Your task to perform on an android device: add a label to a message in the gmail app Image 0: 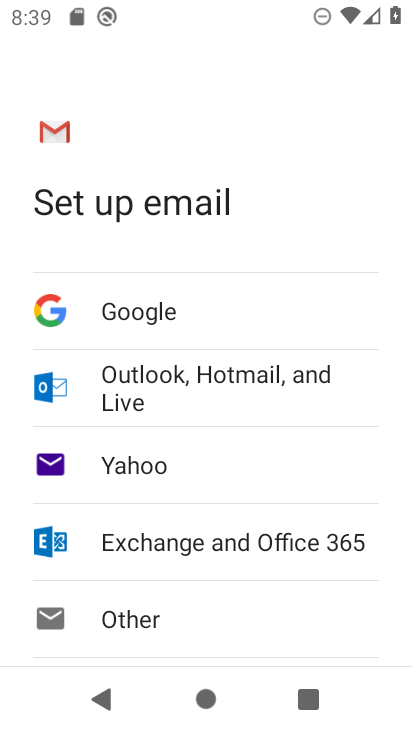
Step 0: press home button
Your task to perform on an android device: add a label to a message in the gmail app Image 1: 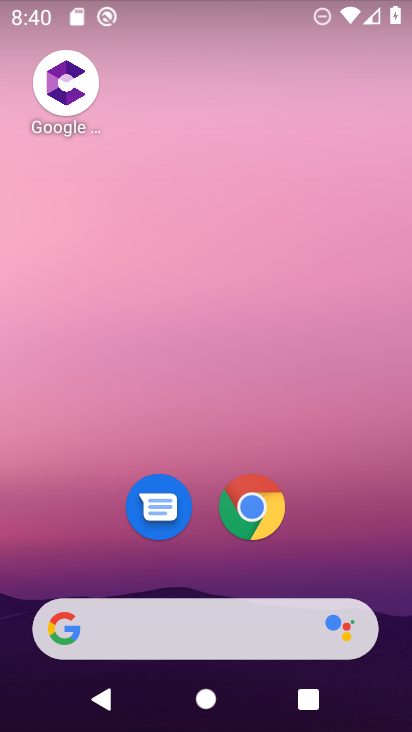
Step 1: drag from (211, 571) to (196, 107)
Your task to perform on an android device: add a label to a message in the gmail app Image 2: 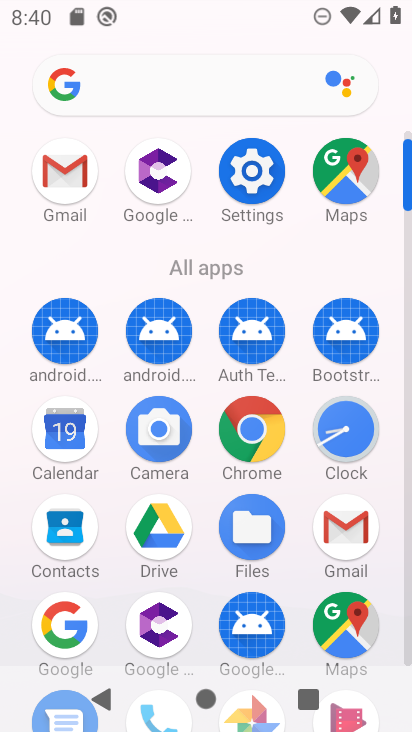
Step 2: click (355, 529)
Your task to perform on an android device: add a label to a message in the gmail app Image 3: 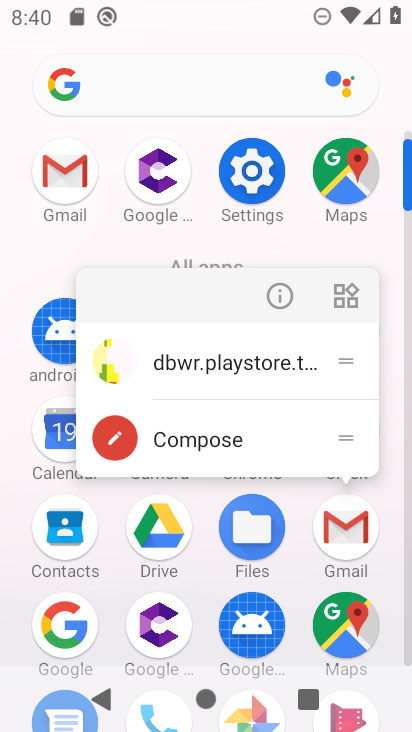
Step 3: click (355, 529)
Your task to perform on an android device: add a label to a message in the gmail app Image 4: 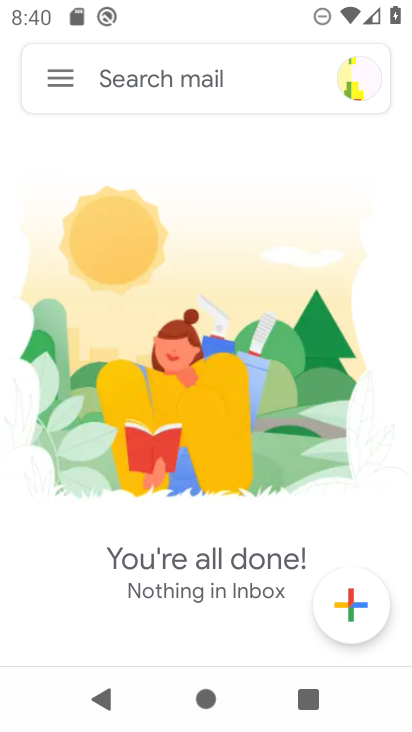
Step 4: click (45, 75)
Your task to perform on an android device: add a label to a message in the gmail app Image 5: 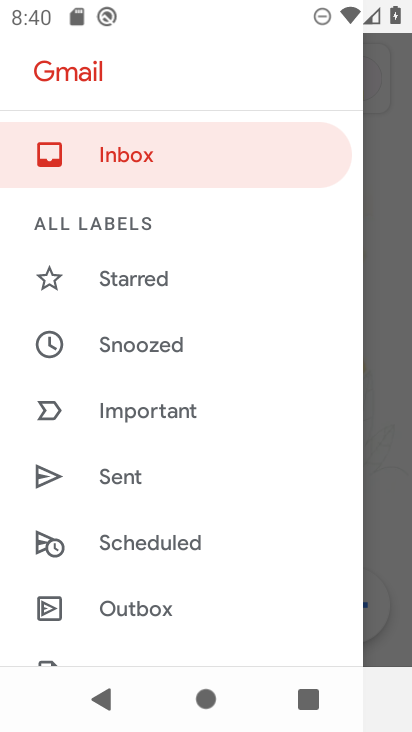
Step 5: drag from (206, 591) to (230, 222)
Your task to perform on an android device: add a label to a message in the gmail app Image 6: 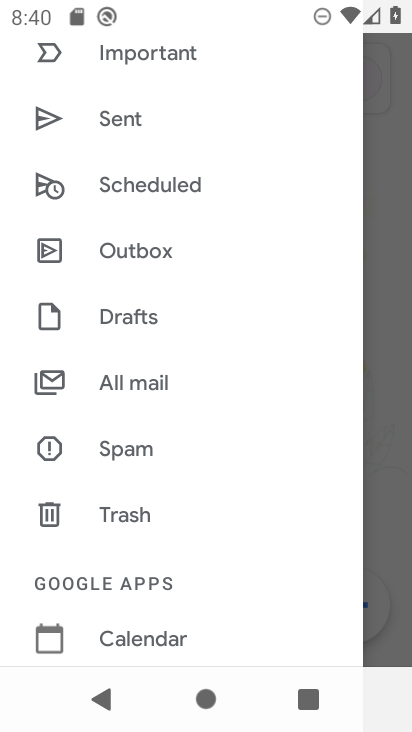
Step 6: click (133, 368)
Your task to perform on an android device: add a label to a message in the gmail app Image 7: 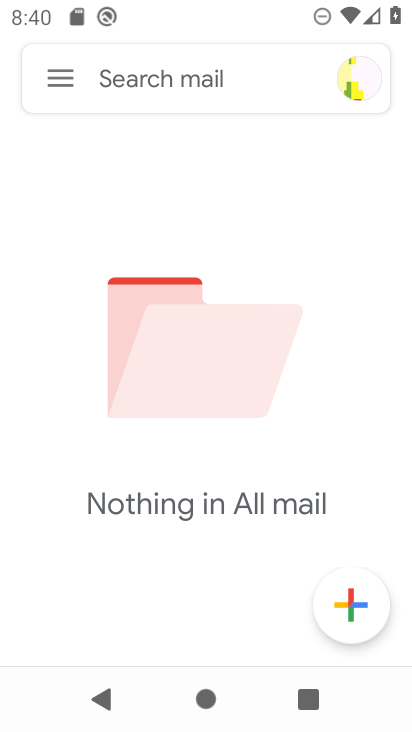
Step 7: task complete